Your task to perform on an android device: change the clock style Image 0: 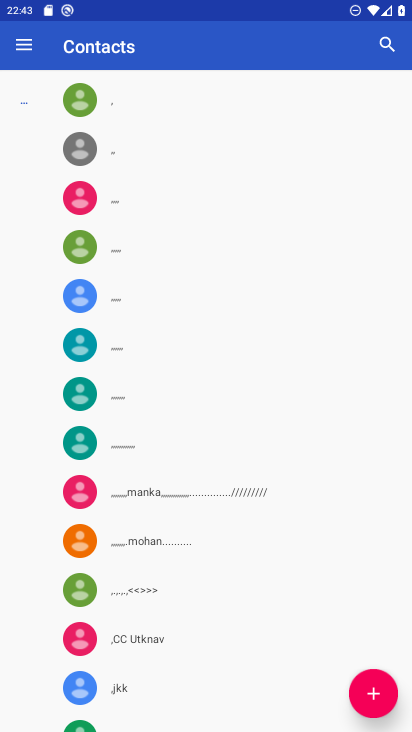
Step 0: press home button
Your task to perform on an android device: change the clock style Image 1: 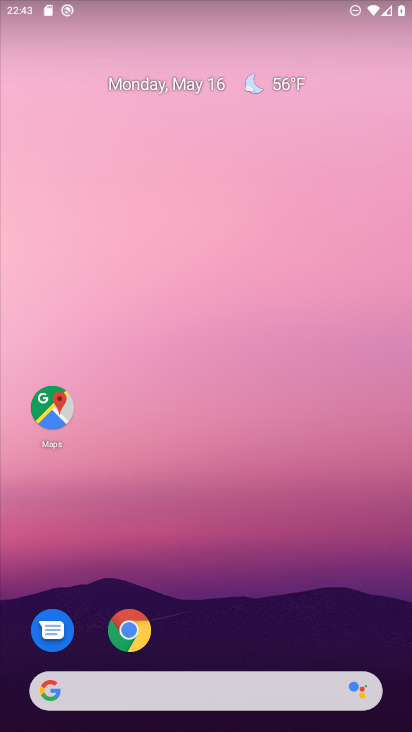
Step 1: drag from (216, 541) to (272, 81)
Your task to perform on an android device: change the clock style Image 2: 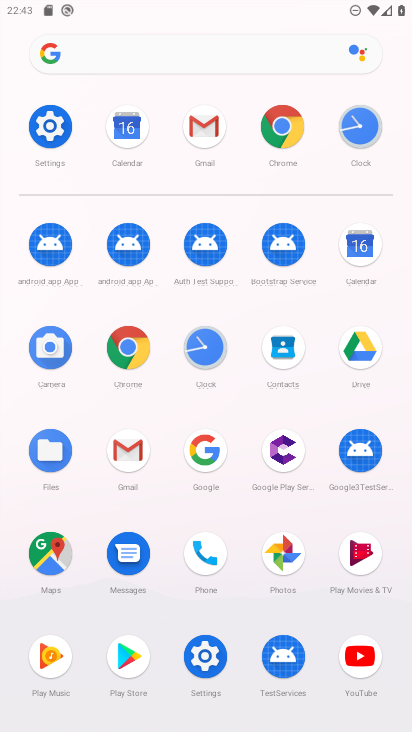
Step 2: click (223, 358)
Your task to perform on an android device: change the clock style Image 3: 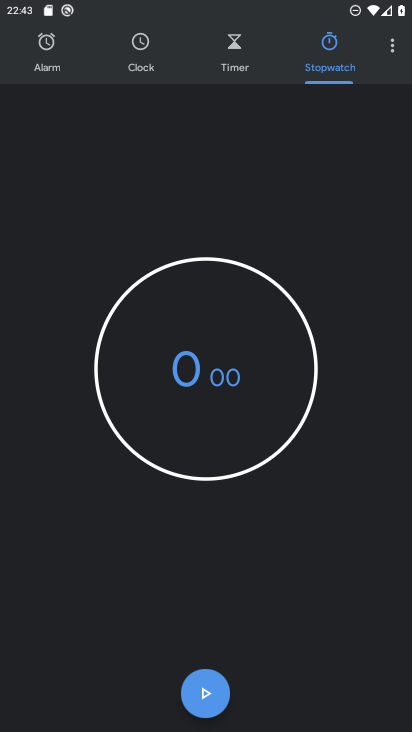
Step 3: click (391, 49)
Your task to perform on an android device: change the clock style Image 4: 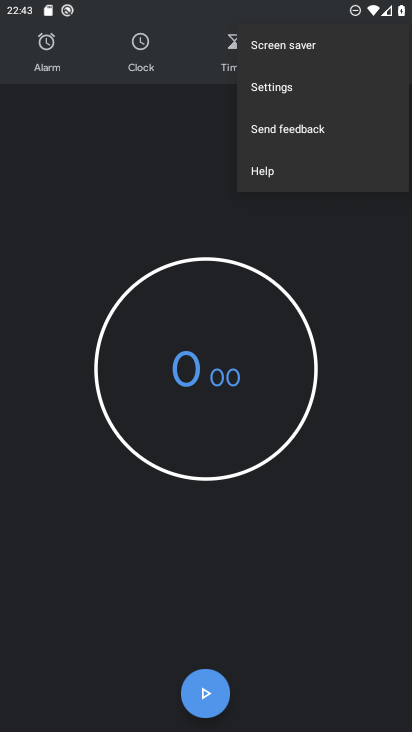
Step 4: click (297, 88)
Your task to perform on an android device: change the clock style Image 5: 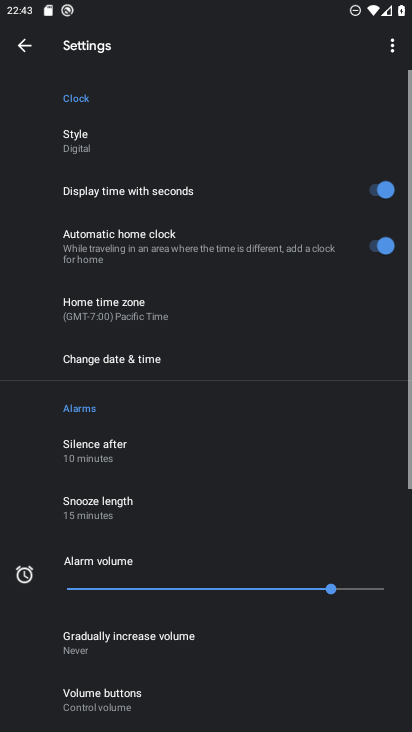
Step 5: click (103, 153)
Your task to perform on an android device: change the clock style Image 6: 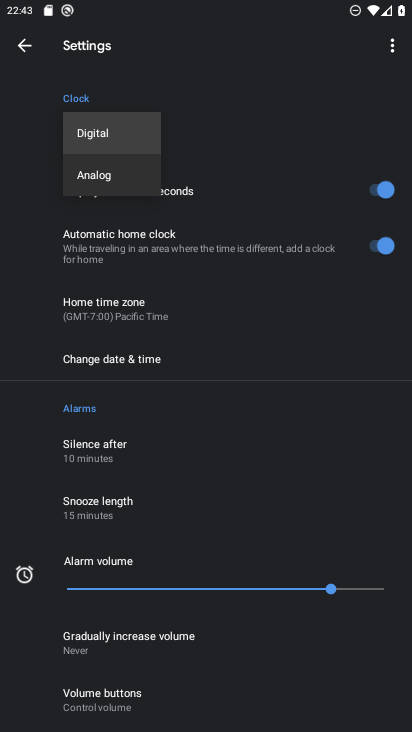
Step 6: click (108, 180)
Your task to perform on an android device: change the clock style Image 7: 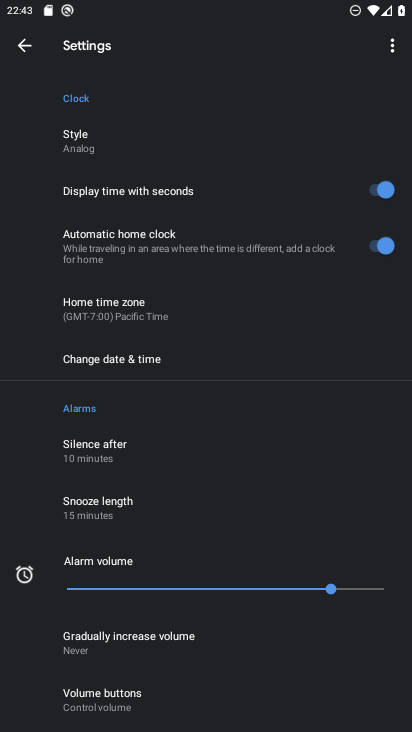
Step 7: task complete